Your task to perform on an android device: open app "TextNow: Call + Text Unlimited" (install if not already installed) Image 0: 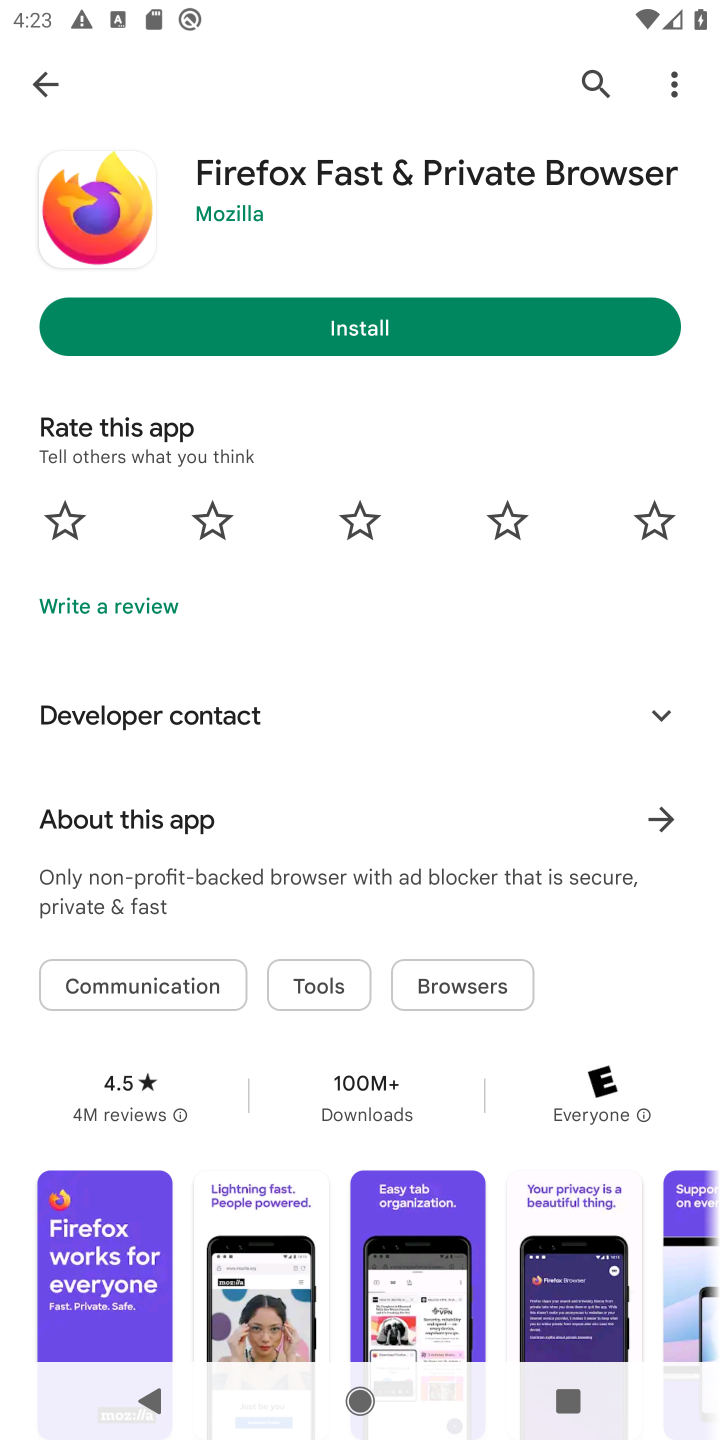
Step 0: press home button
Your task to perform on an android device: open app "TextNow: Call + Text Unlimited" (install if not already installed) Image 1: 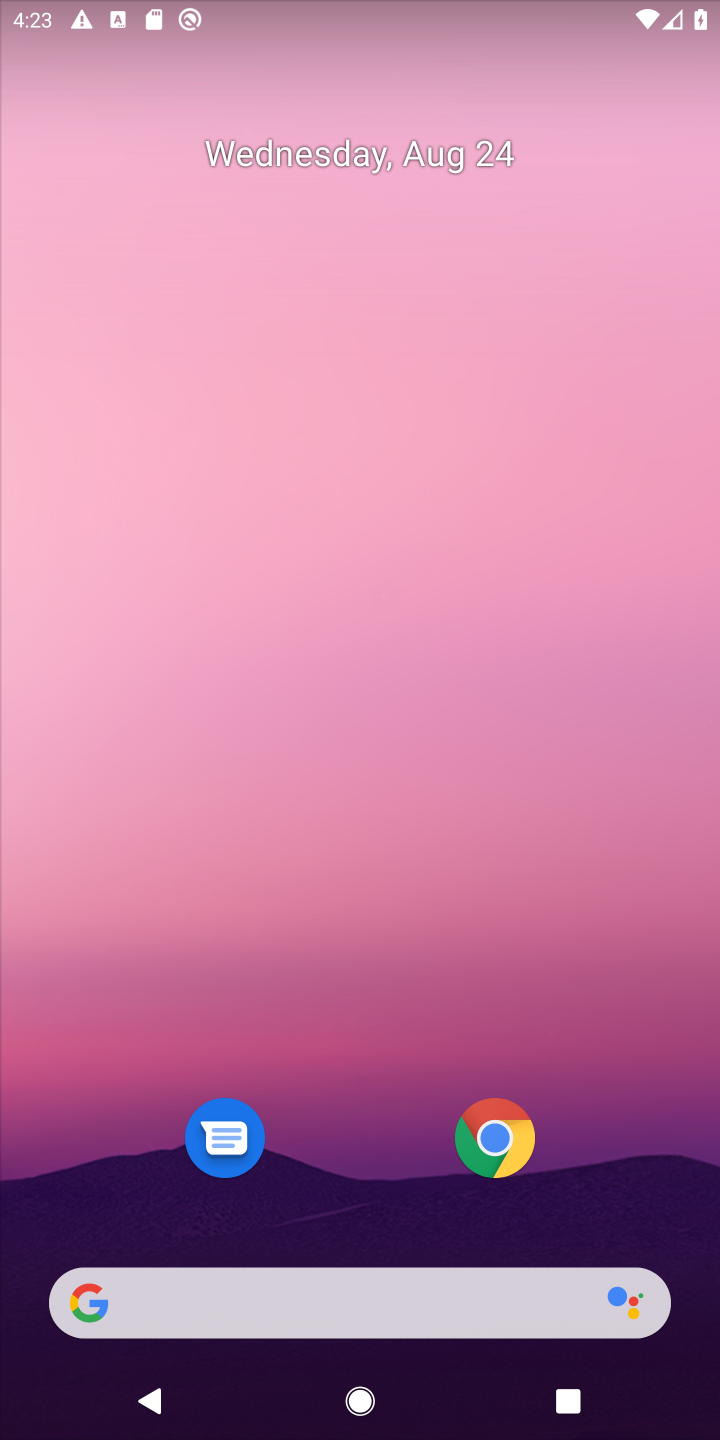
Step 1: drag from (345, 1107) to (277, 250)
Your task to perform on an android device: open app "TextNow: Call + Text Unlimited" (install if not already installed) Image 2: 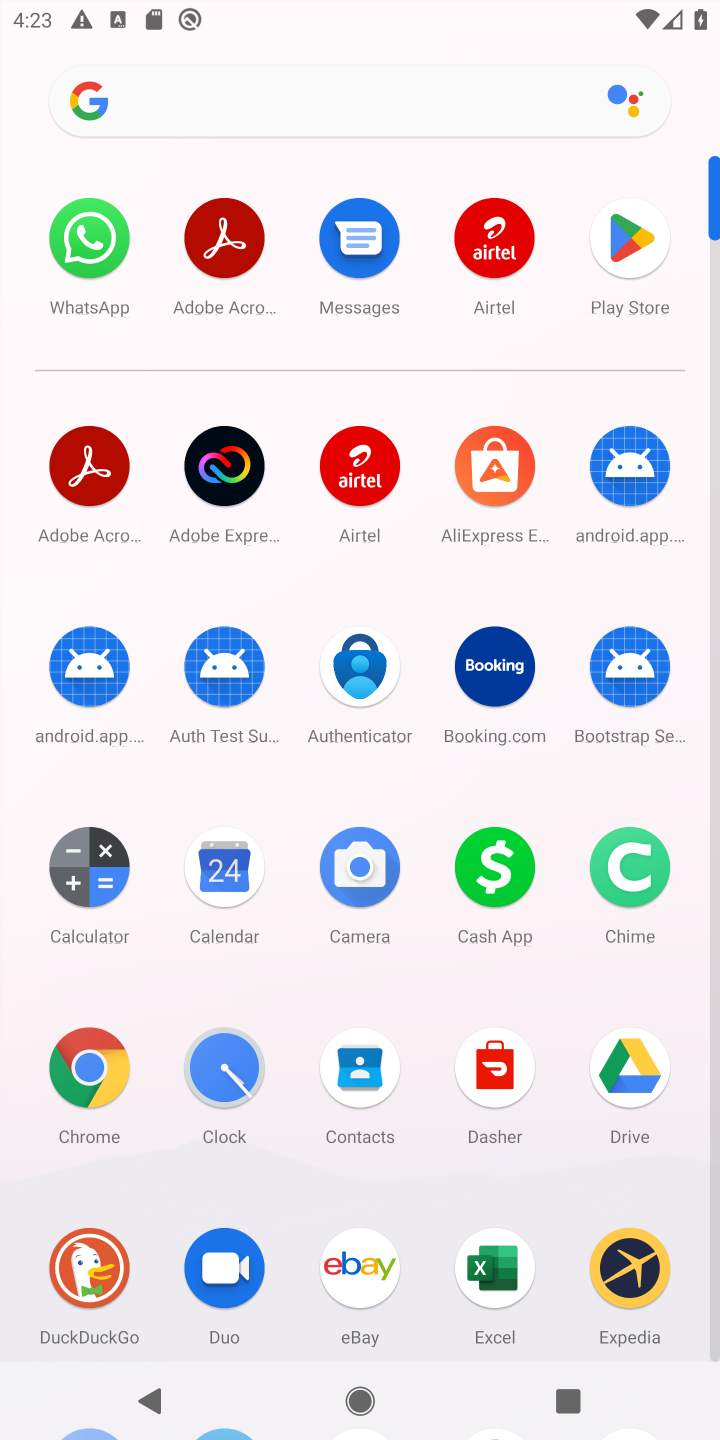
Step 2: click (626, 236)
Your task to perform on an android device: open app "TextNow: Call + Text Unlimited" (install if not already installed) Image 3: 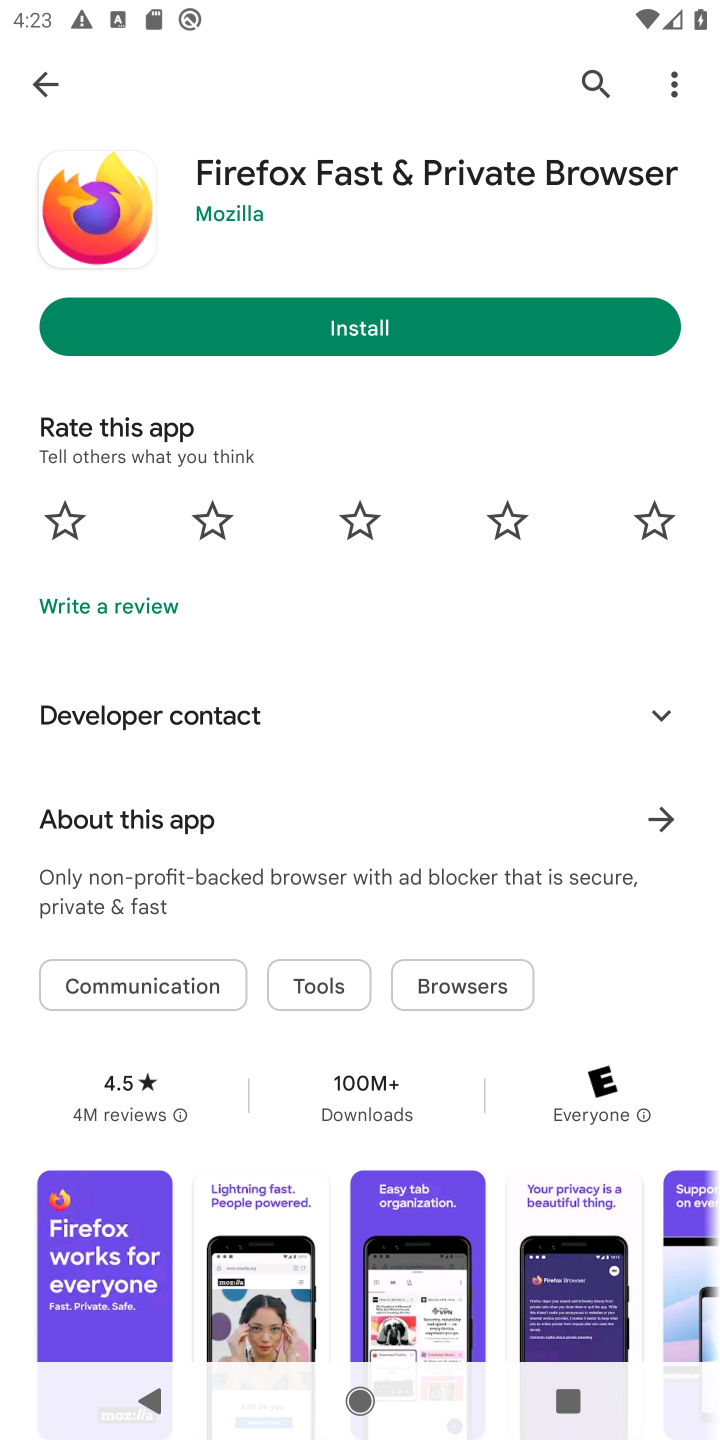
Step 3: click (589, 77)
Your task to perform on an android device: open app "TextNow: Call + Text Unlimited" (install if not already installed) Image 4: 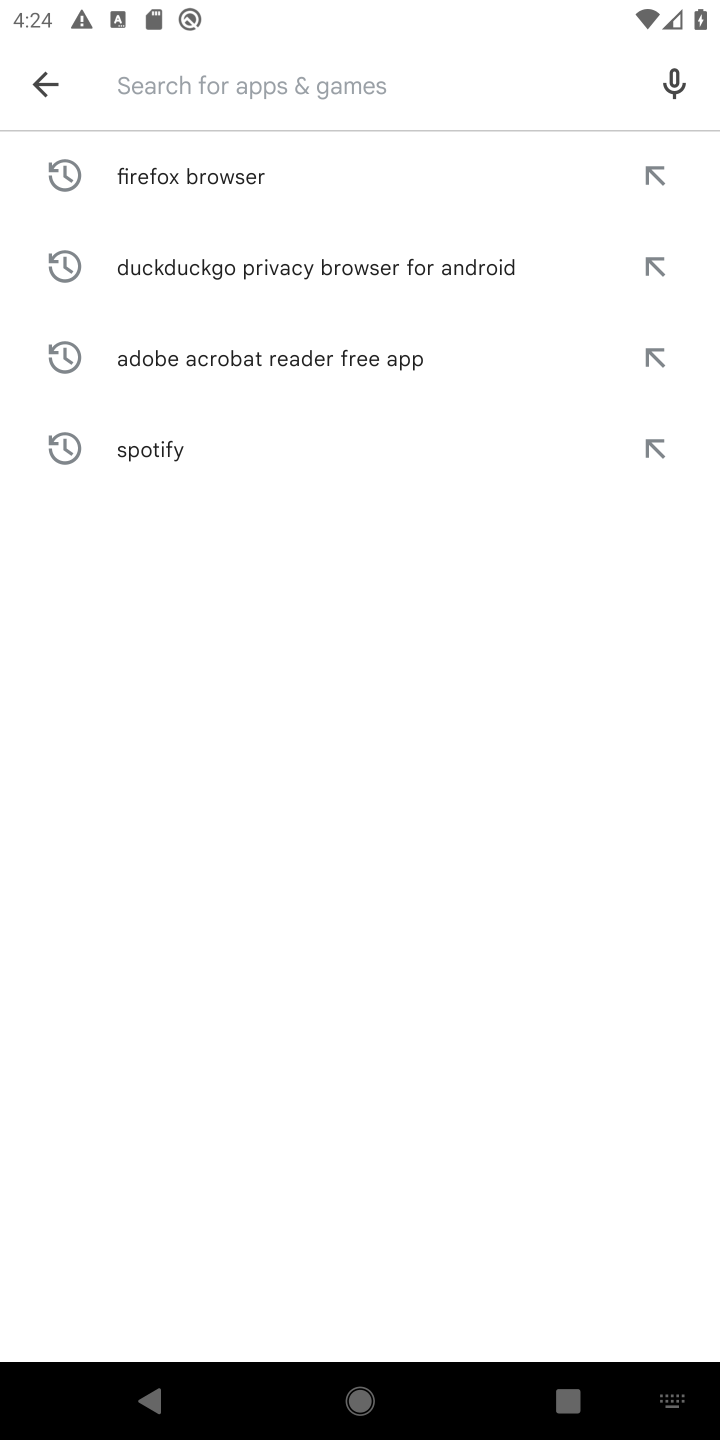
Step 4: type "TextNow: Call + Text Unlimited"
Your task to perform on an android device: open app "TextNow: Call + Text Unlimited" (install if not already installed) Image 5: 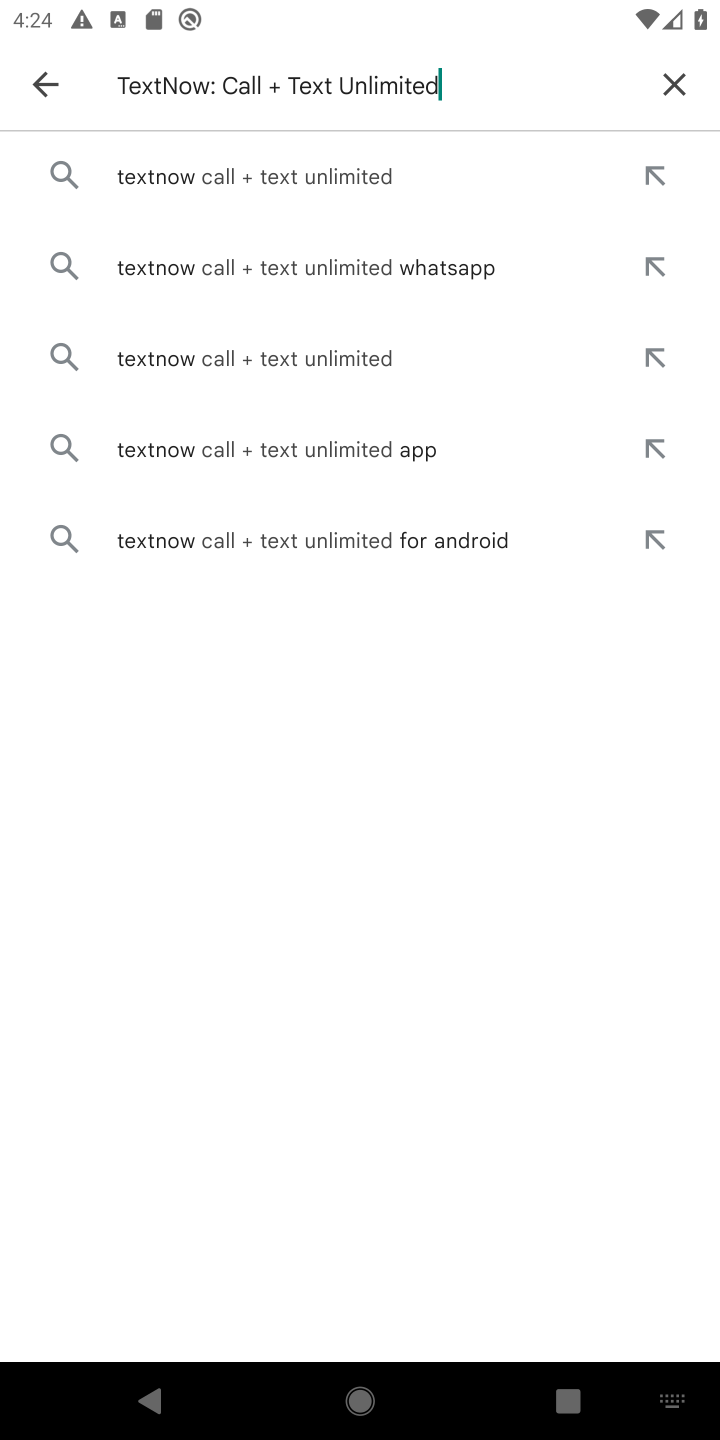
Step 5: type ""
Your task to perform on an android device: open app "TextNow: Call + Text Unlimited" (install if not already installed) Image 6: 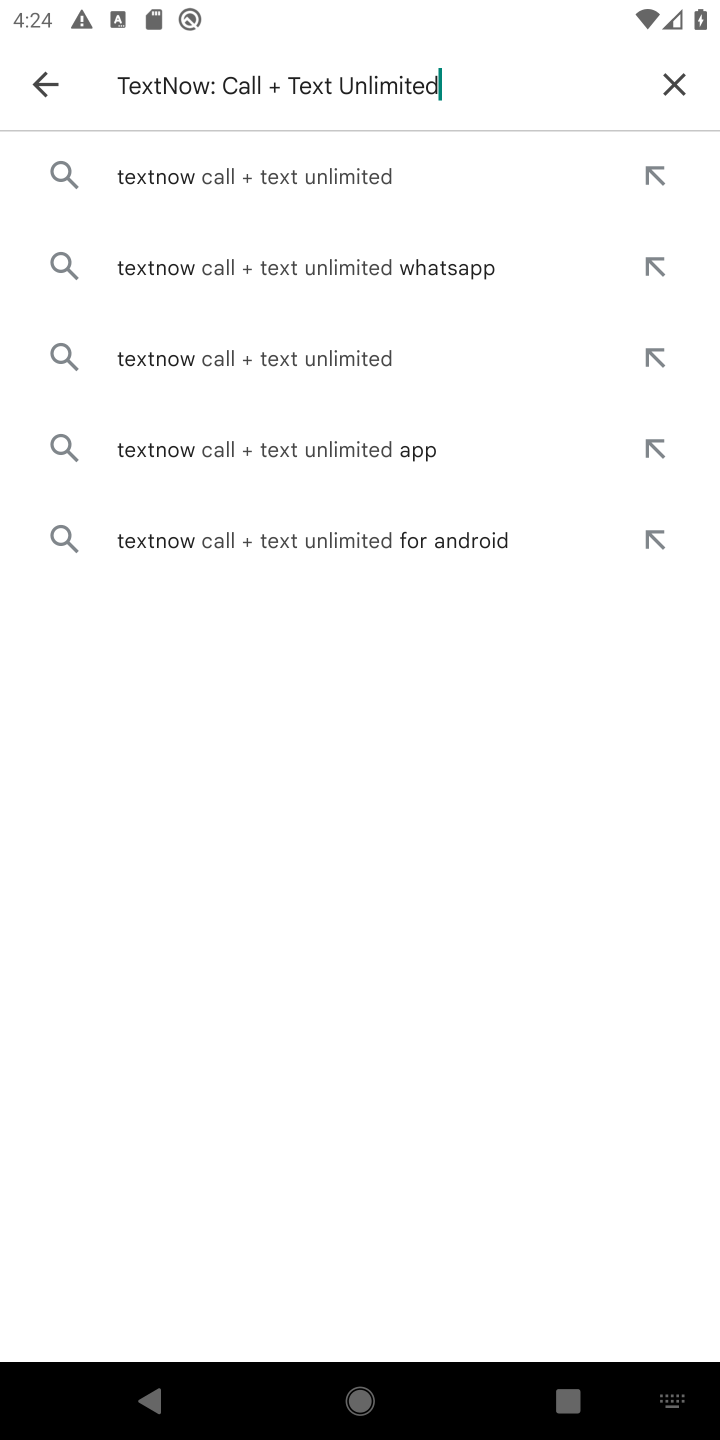
Step 6: click (350, 170)
Your task to perform on an android device: open app "TextNow: Call + Text Unlimited" (install if not already installed) Image 7: 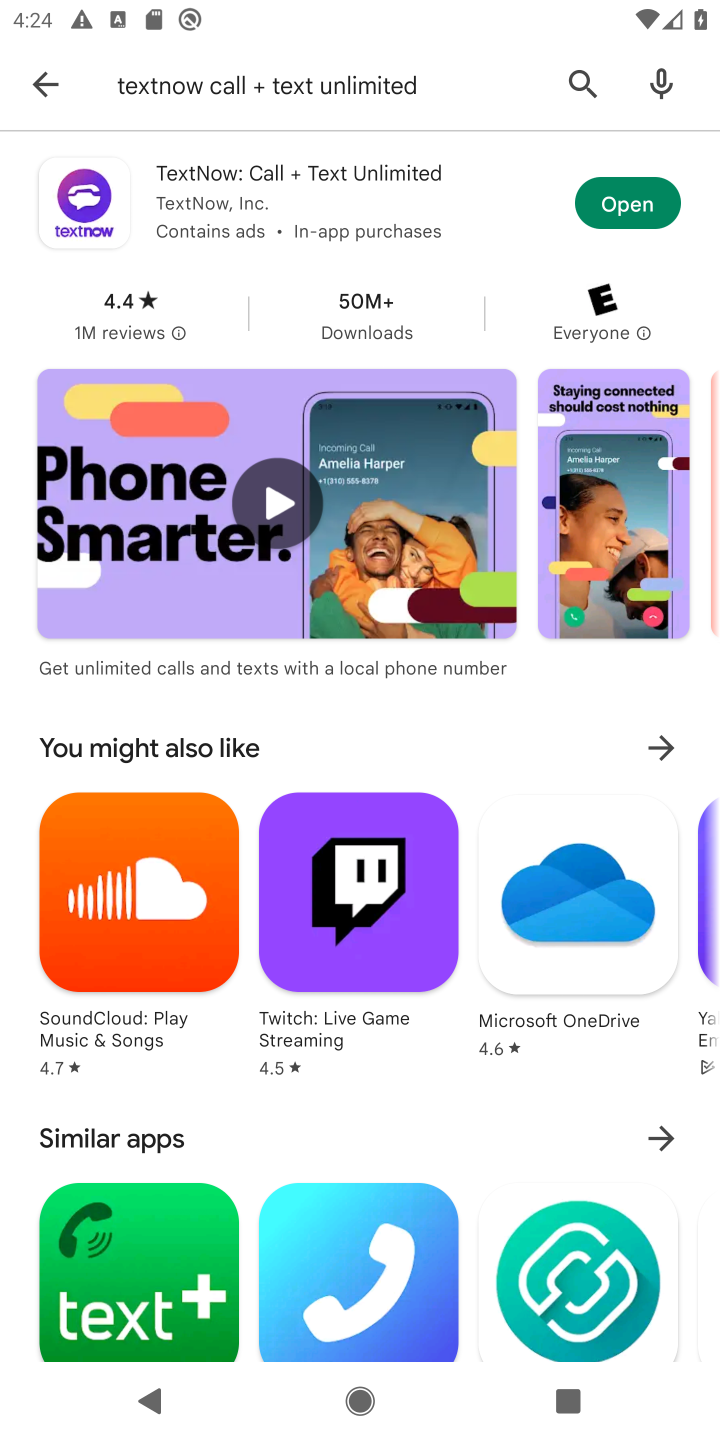
Step 7: click (614, 204)
Your task to perform on an android device: open app "TextNow: Call + Text Unlimited" (install if not already installed) Image 8: 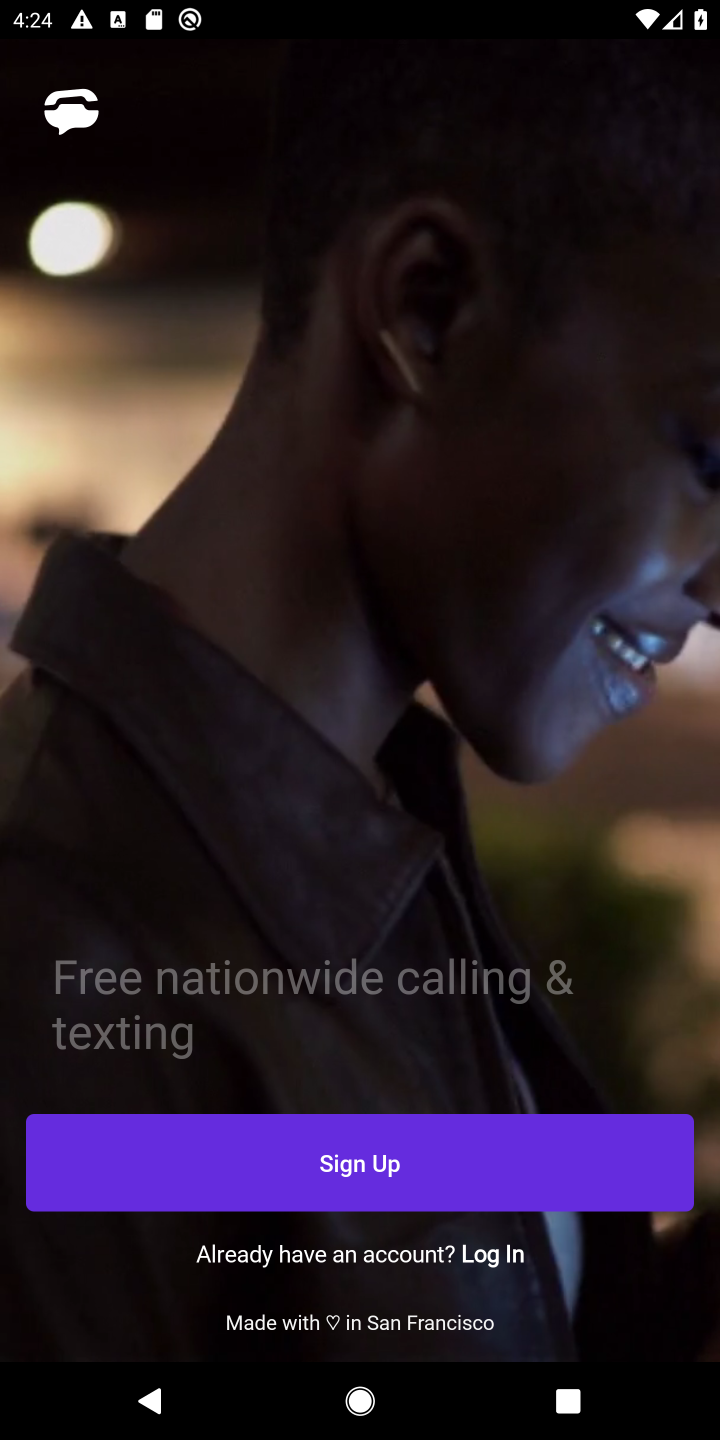
Step 8: task complete